Your task to perform on an android device: What's on my calendar today? Image 0: 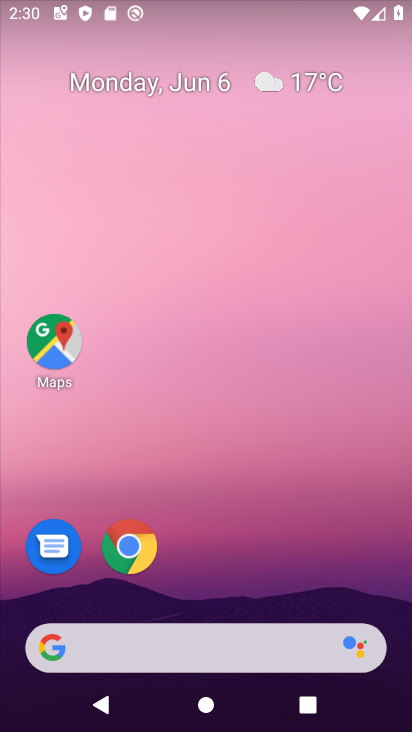
Step 0: drag from (320, 576) to (218, 86)
Your task to perform on an android device: What's on my calendar today? Image 1: 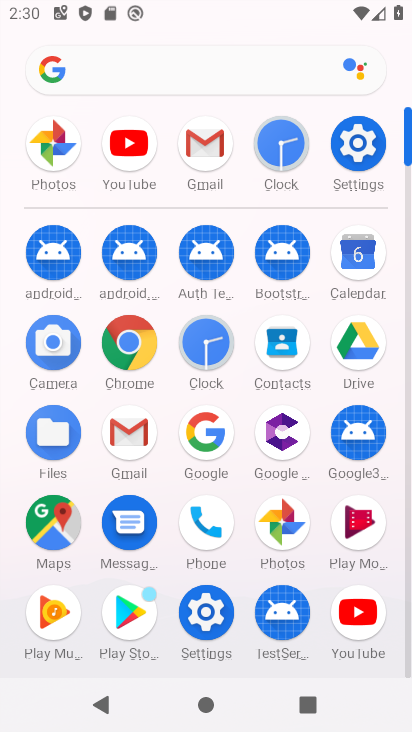
Step 1: click (369, 279)
Your task to perform on an android device: What's on my calendar today? Image 2: 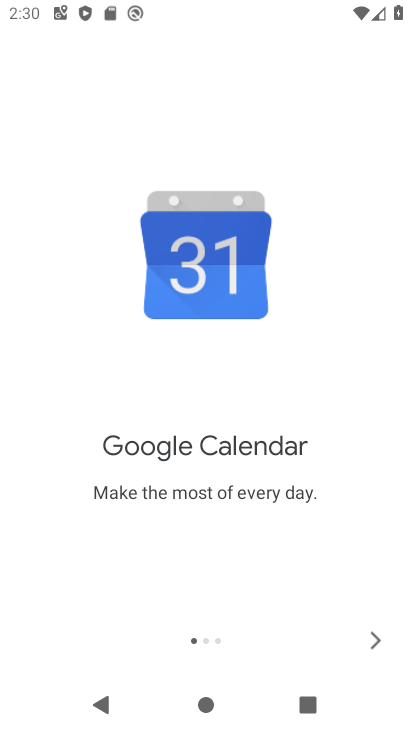
Step 2: click (377, 643)
Your task to perform on an android device: What's on my calendar today? Image 3: 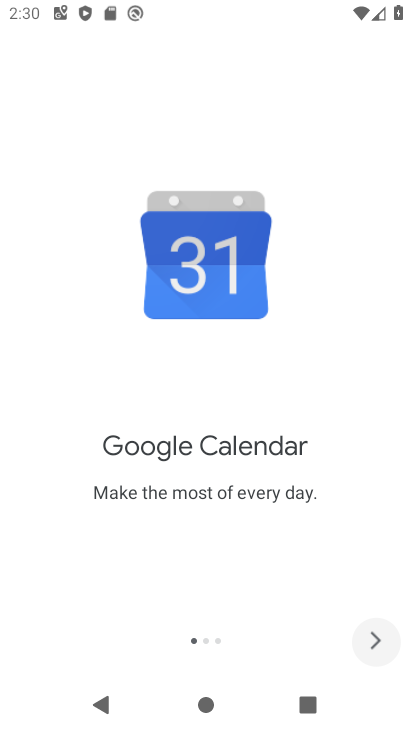
Step 3: click (377, 643)
Your task to perform on an android device: What's on my calendar today? Image 4: 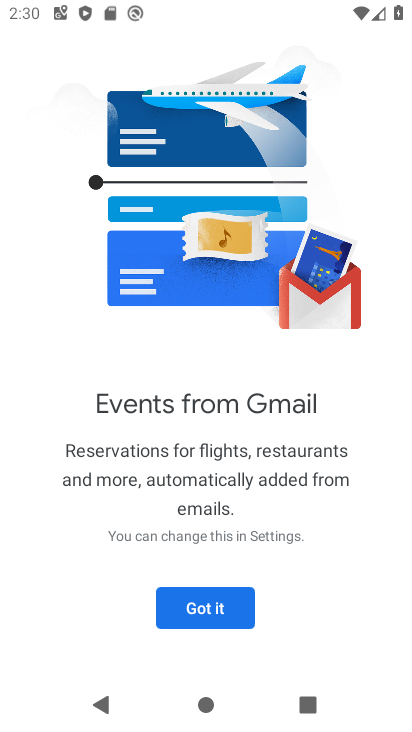
Step 4: click (377, 643)
Your task to perform on an android device: What's on my calendar today? Image 5: 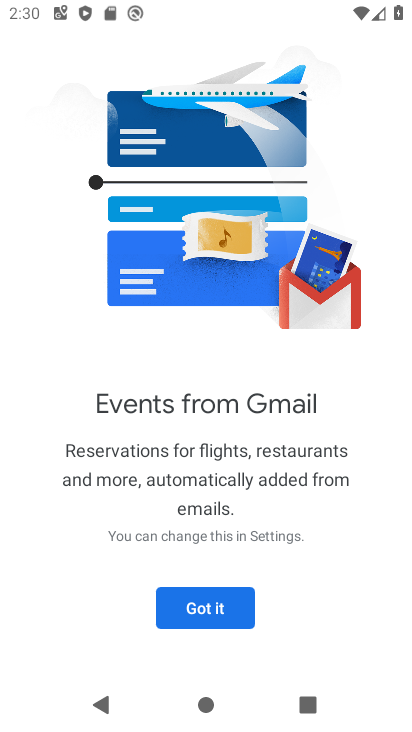
Step 5: click (190, 600)
Your task to perform on an android device: What's on my calendar today? Image 6: 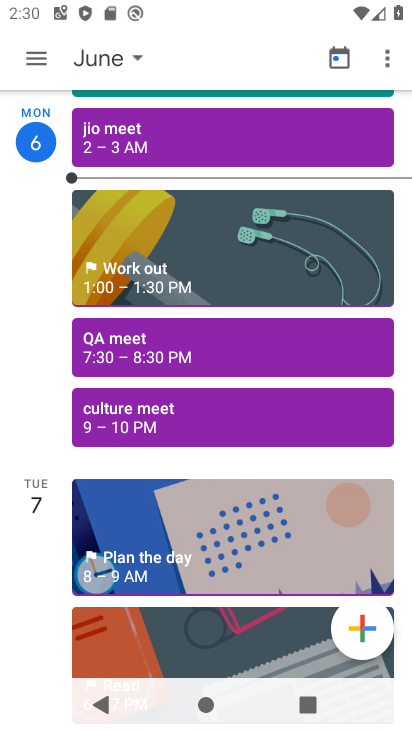
Step 6: task complete